Your task to perform on an android device: toggle notifications settings in the gmail app Image 0: 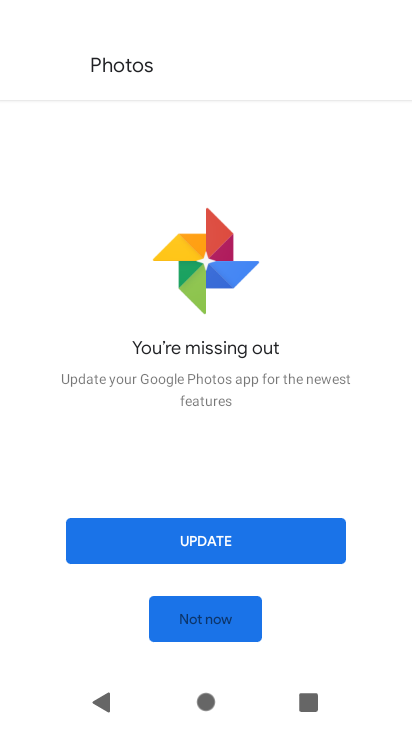
Step 0: press home button
Your task to perform on an android device: toggle notifications settings in the gmail app Image 1: 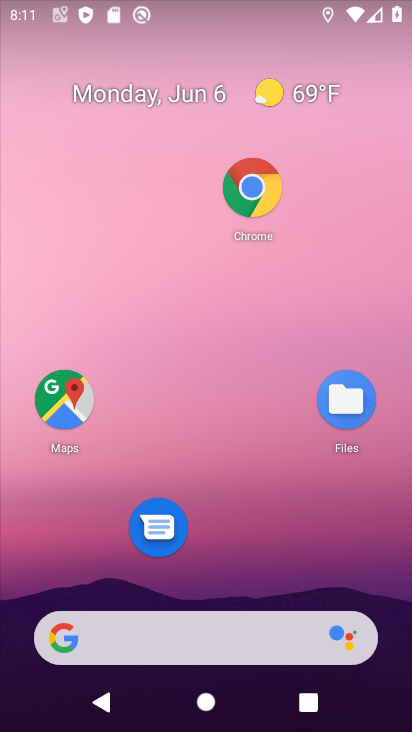
Step 1: drag from (213, 514) to (201, 132)
Your task to perform on an android device: toggle notifications settings in the gmail app Image 2: 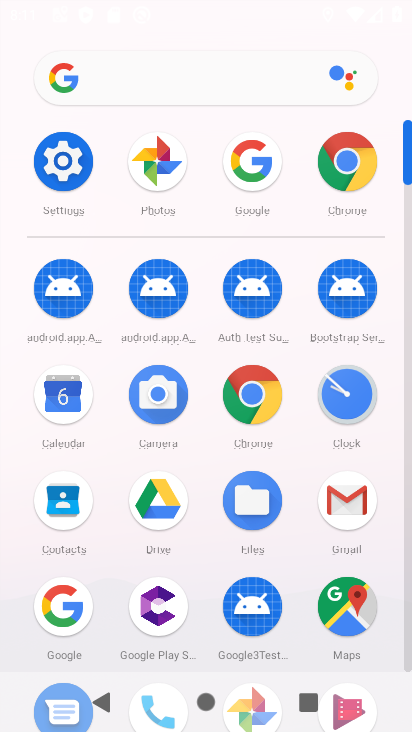
Step 2: click (339, 503)
Your task to perform on an android device: toggle notifications settings in the gmail app Image 3: 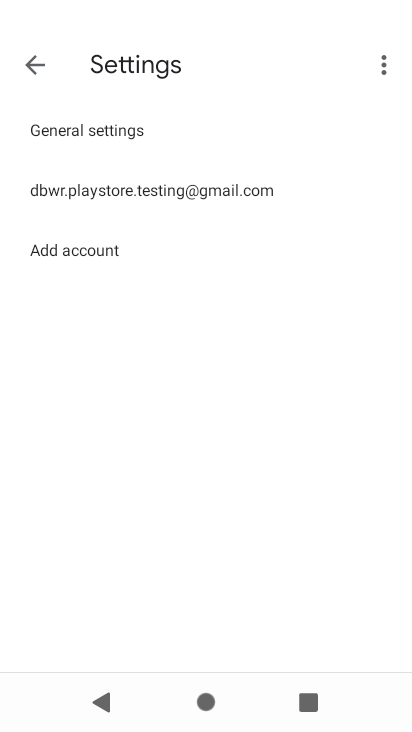
Step 3: press back button
Your task to perform on an android device: toggle notifications settings in the gmail app Image 4: 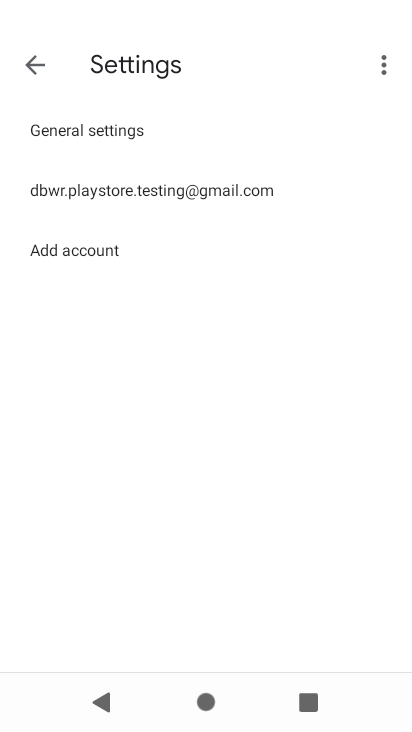
Step 4: press back button
Your task to perform on an android device: toggle notifications settings in the gmail app Image 5: 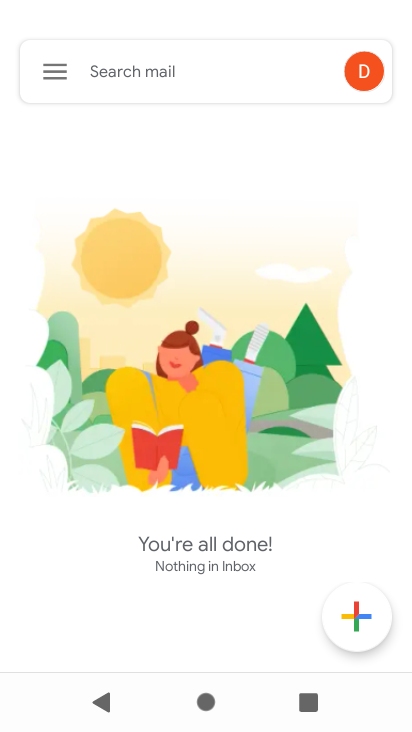
Step 5: click (49, 72)
Your task to perform on an android device: toggle notifications settings in the gmail app Image 6: 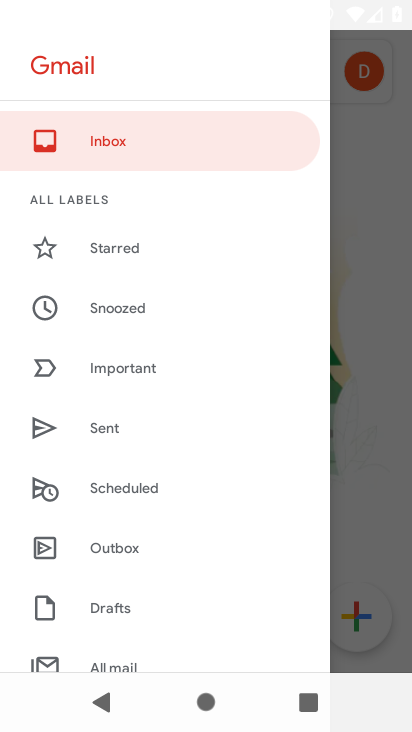
Step 6: drag from (199, 569) to (165, 217)
Your task to perform on an android device: toggle notifications settings in the gmail app Image 7: 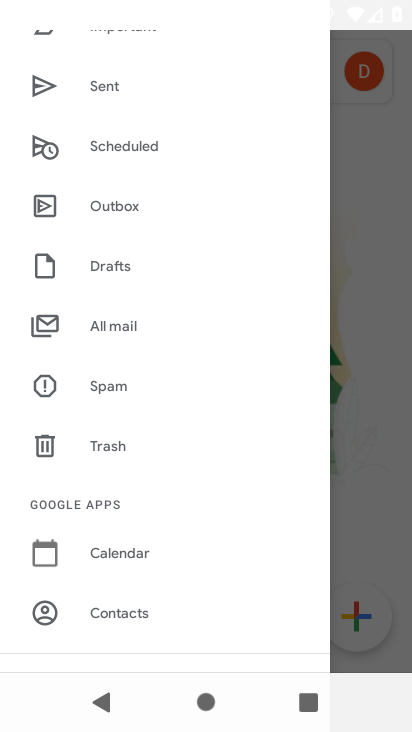
Step 7: drag from (162, 621) to (150, 312)
Your task to perform on an android device: toggle notifications settings in the gmail app Image 8: 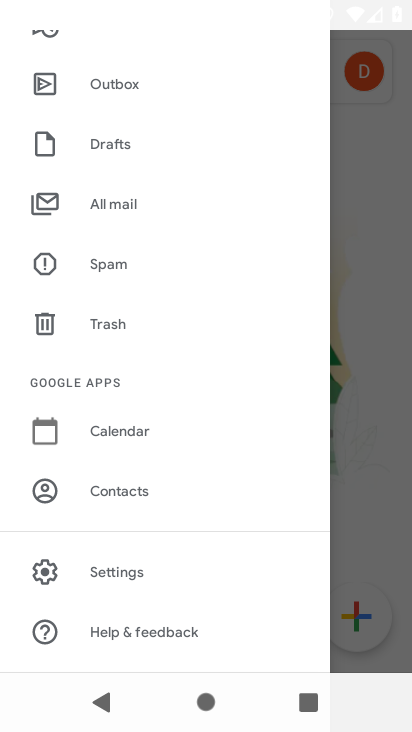
Step 8: click (136, 566)
Your task to perform on an android device: toggle notifications settings in the gmail app Image 9: 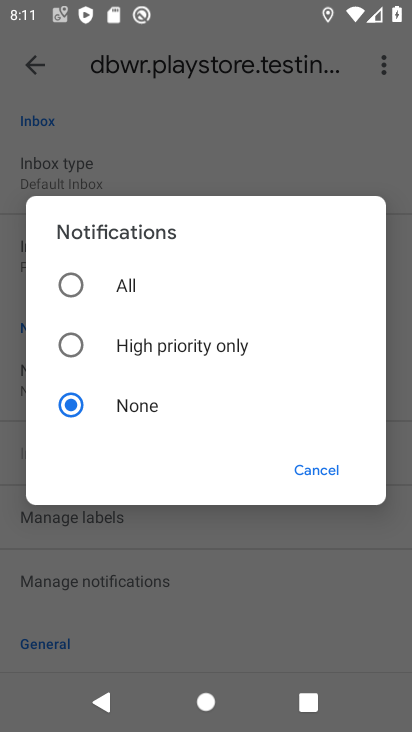
Step 9: click (106, 288)
Your task to perform on an android device: toggle notifications settings in the gmail app Image 10: 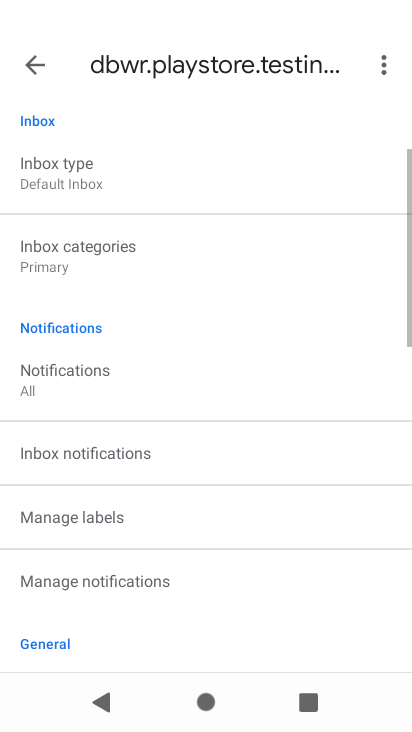
Step 10: task complete